Your task to perform on an android device: set default search engine in the chrome app Image 0: 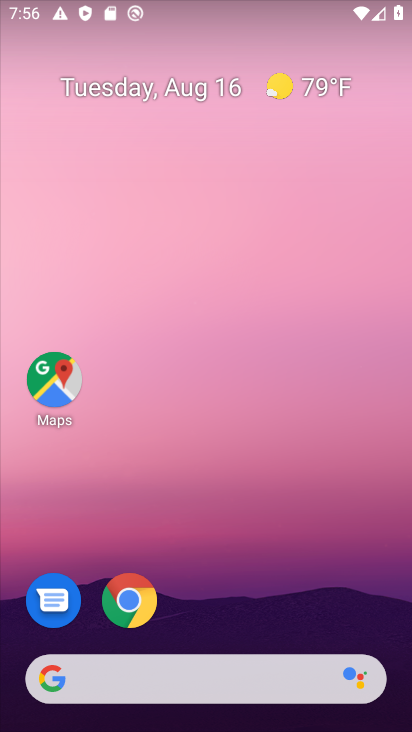
Step 0: drag from (169, 550) to (262, 186)
Your task to perform on an android device: set default search engine in the chrome app Image 1: 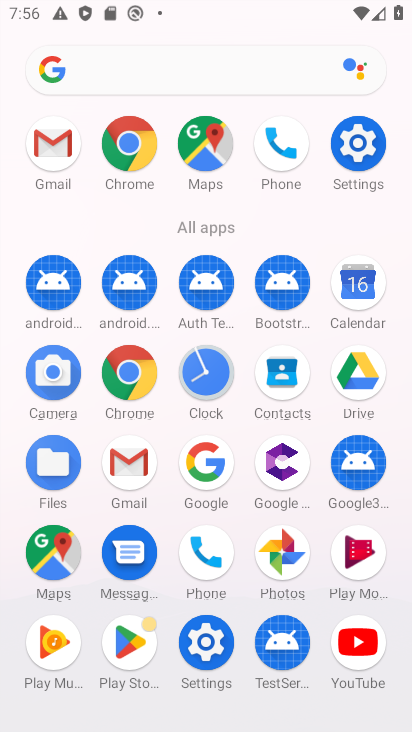
Step 1: click (147, 152)
Your task to perform on an android device: set default search engine in the chrome app Image 2: 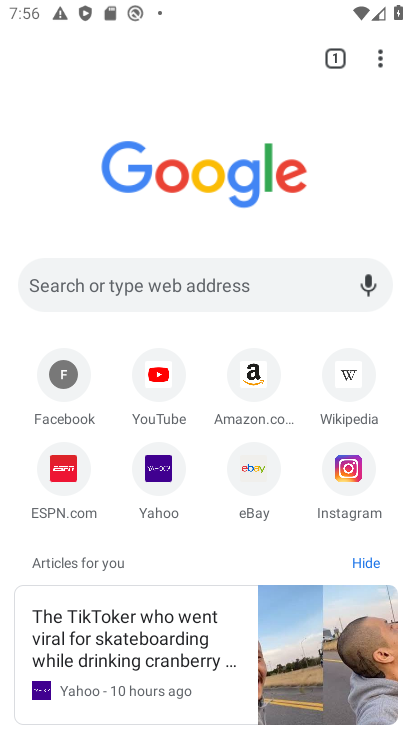
Step 2: drag from (390, 63) to (142, 495)
Your task to perform on an android device: set default search engine in the chrome app Image 3: 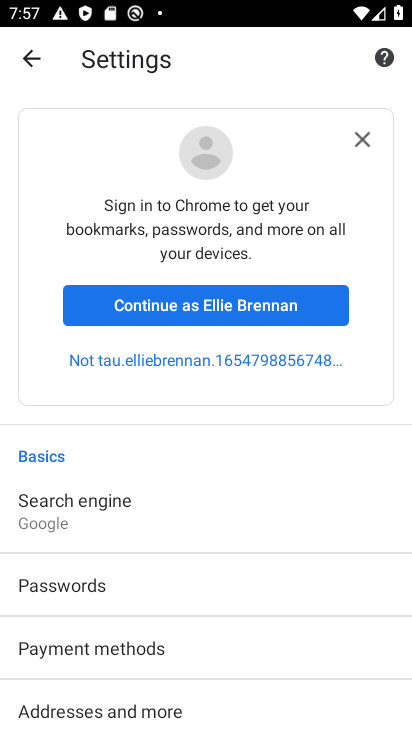
Step 3: click (82, 508)
Your task to perform on an android device: set default search engine in the chrome app Image 4: 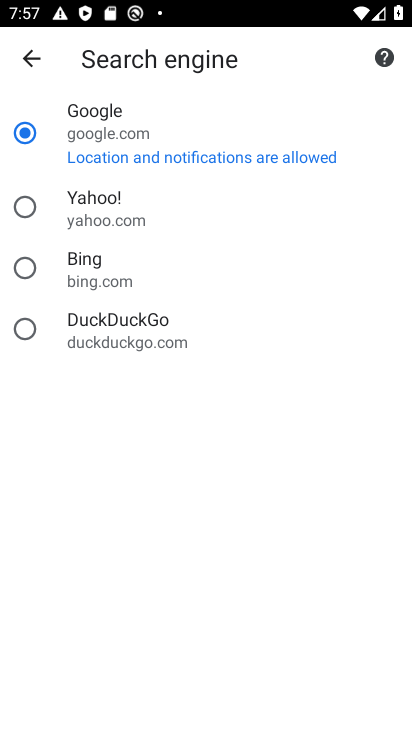
Step 4: task complete